Your task to perform on an android device: What's the weather today? Image 0: 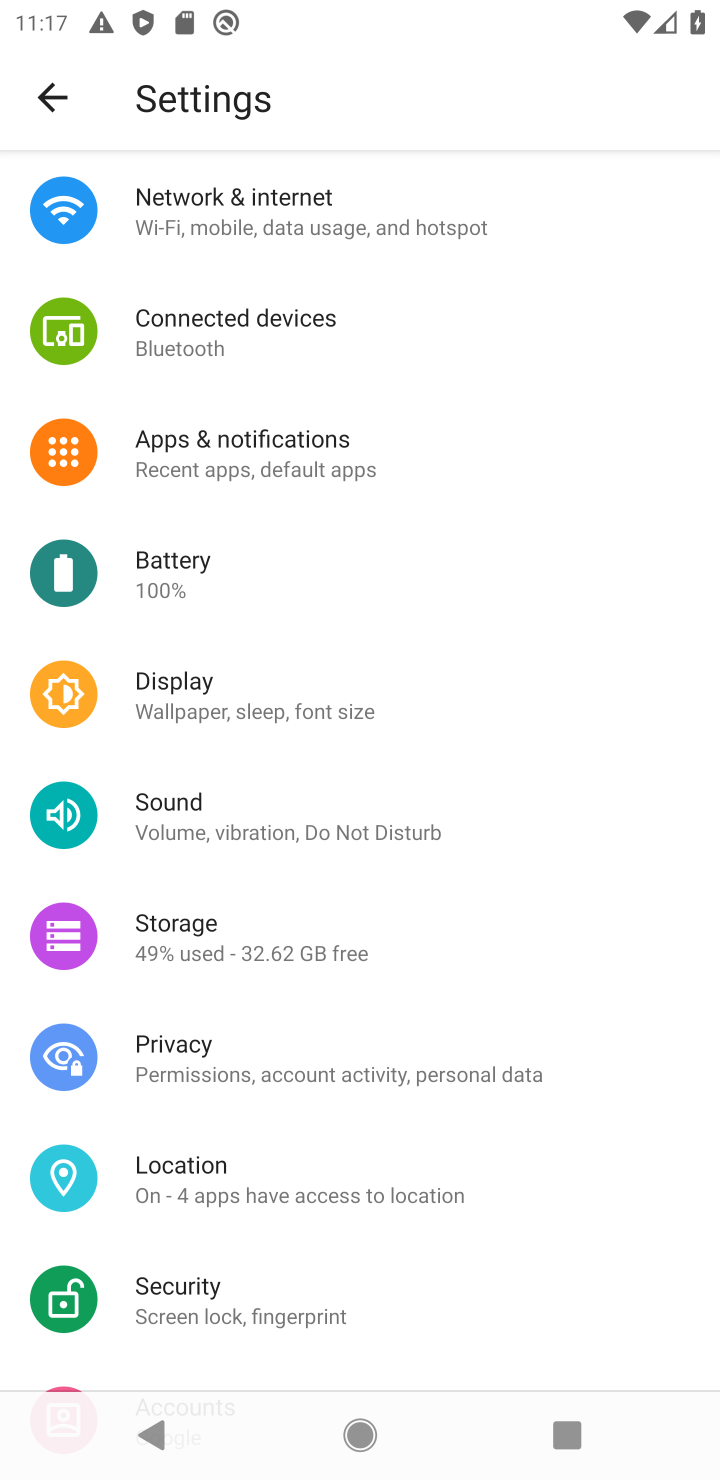
Step 0: click (28, 79)
Your task to perform on an android device: What's the weather today? Image 1: 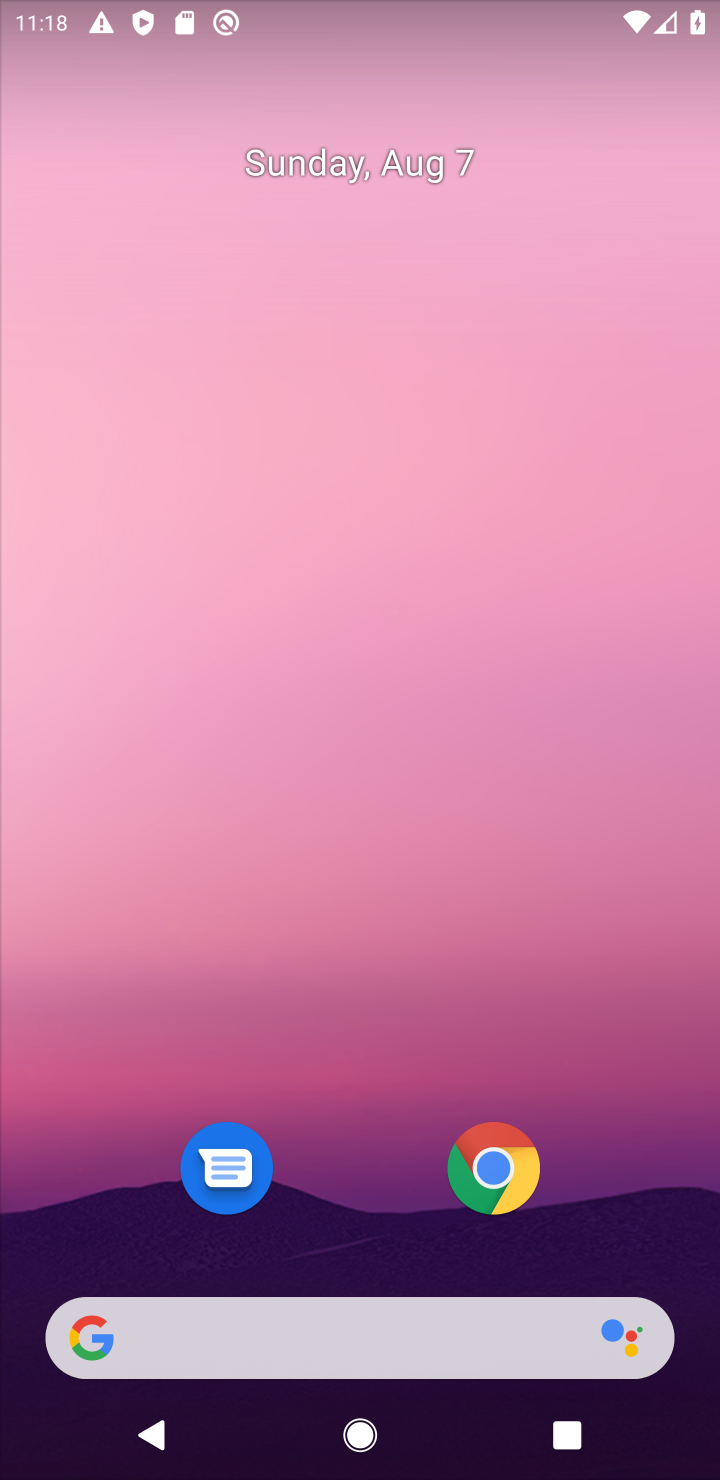
Step 1: click (198, 1331)
Your task to perform on an android device: What's the weather today? Image 2: 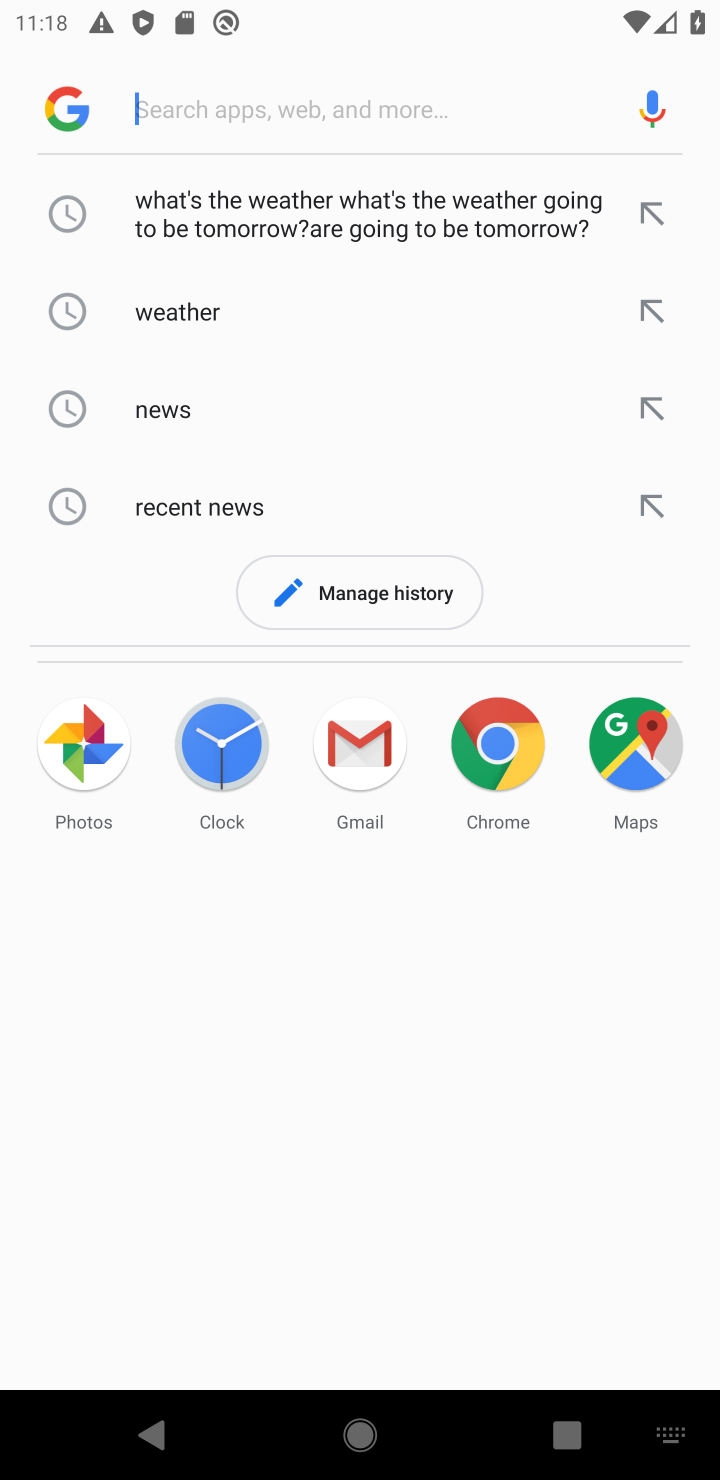
Step 2: type "What's the weather today?"
Your task to perform on an android device: What's the weather today? Image 3: 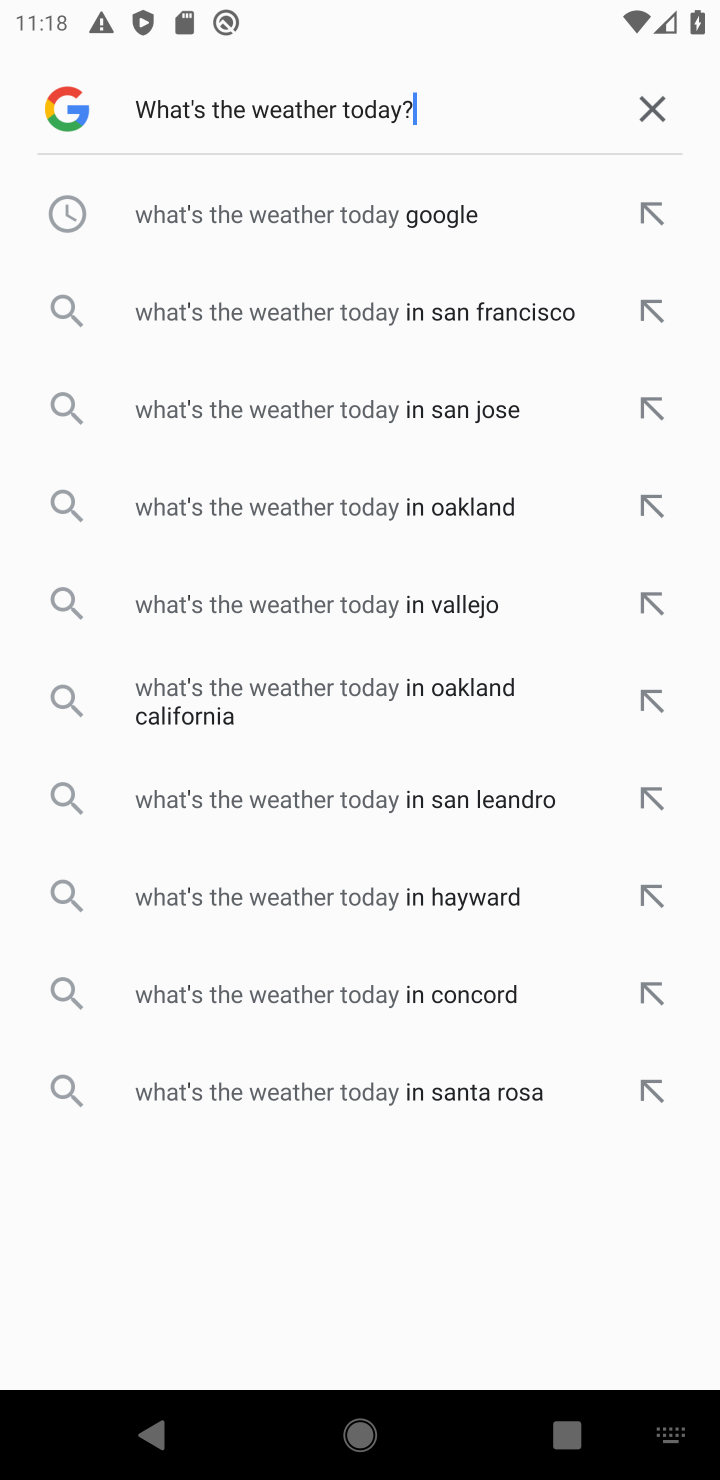
Step 3: task complete